Your task to perform on an android device: Turn off the flashlight Image 0: 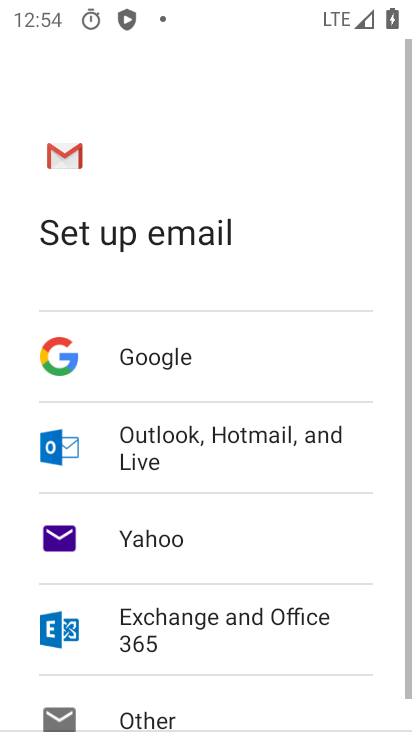
Step 0: drag from (240, 32) to (282, 647)
Your task to perform on an android device: Turn off the flashlight Image 1: 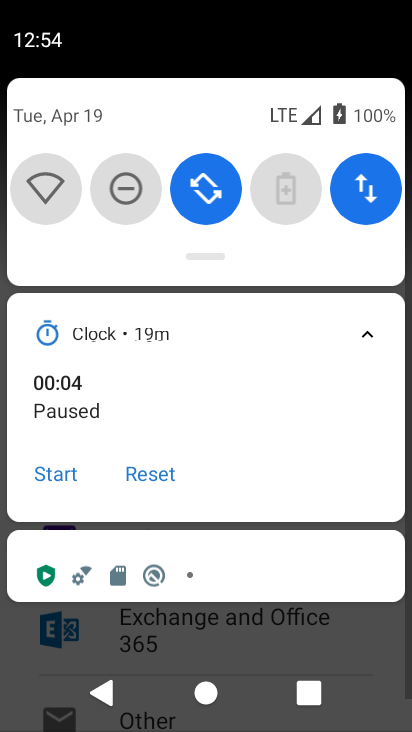
Step 1: task complete